Your task to perform on an android device: change alarm snooze length Image 0: 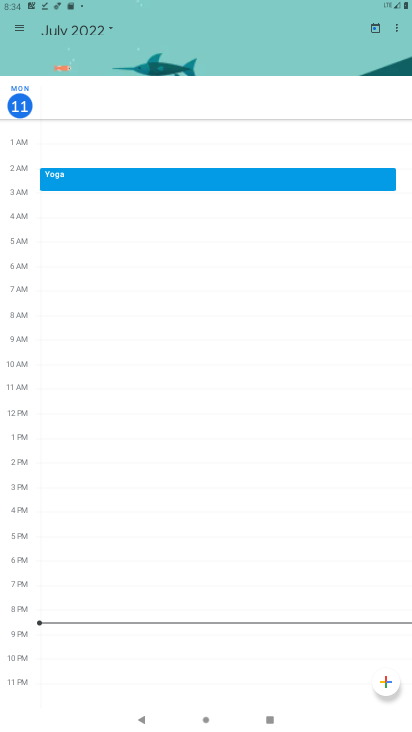
Step 0: press home button
Your task to perform on an android device: change alarm snooze length Image 1: 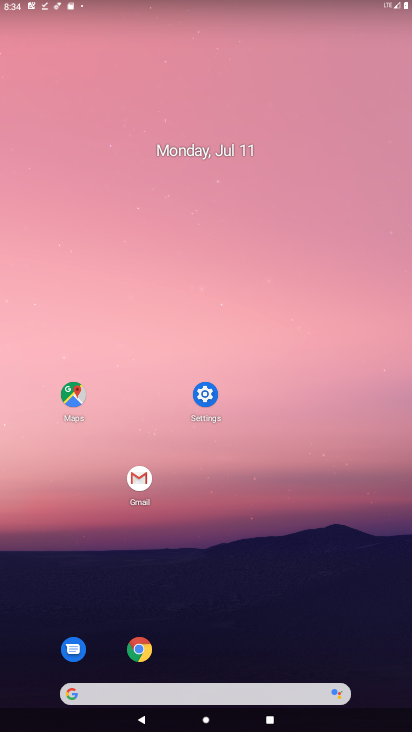
Step 1: drag from (390, 707) to (336, 264)
Your task to perform on an android device: change alarm snooze length Image 2: 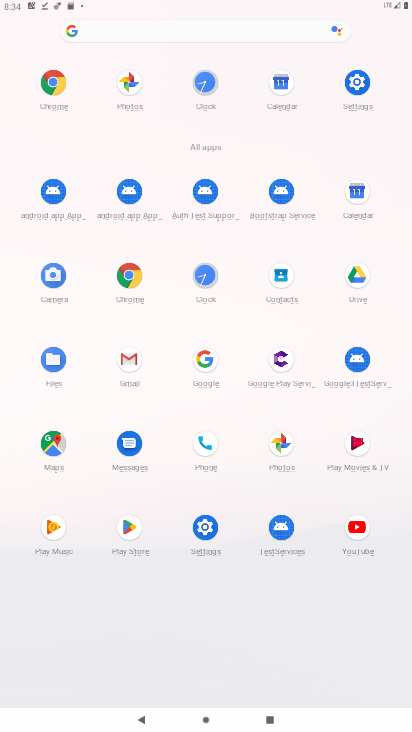
Step 2: click (206, 282)
Your task to perform on an android device: change alarm snooze length Image 3: 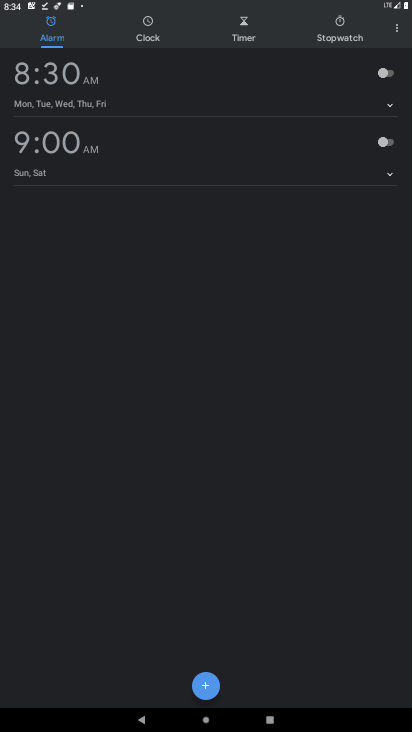
Step 3: click (399, 32)
Your task to perform on an android device: change alarm snooze length Image 4: 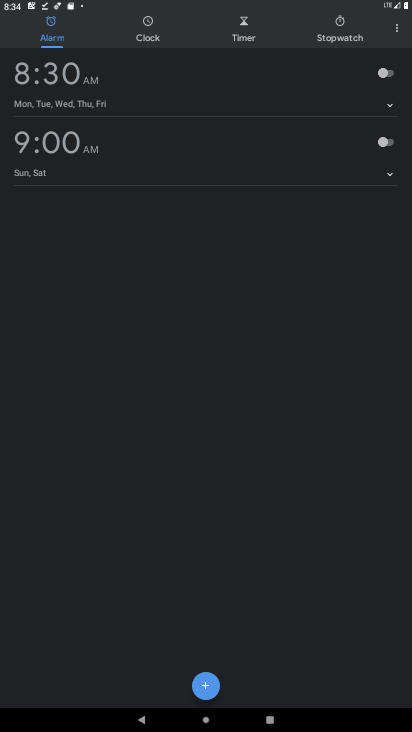
Step 4: click (398, 33)
Your task to perform on an android device: change alarm snooze length Image 5: 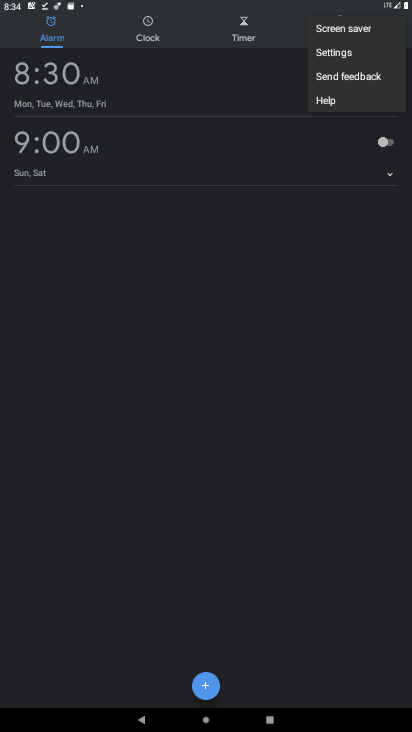
Step 5: click (334, 51)
Your task to perform on an android device: change alarm snooze length Image 6: 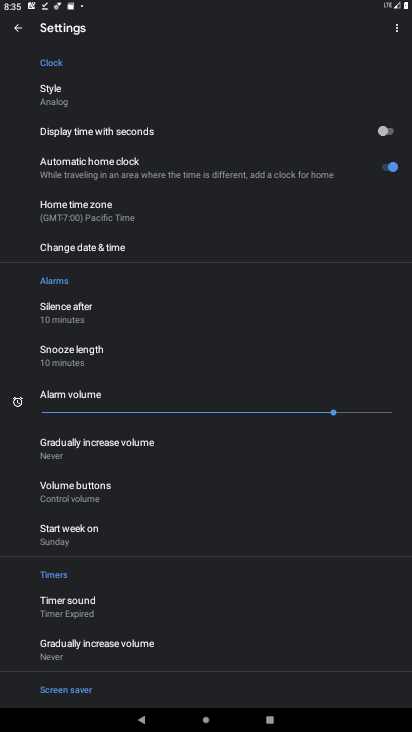
Step 6: click (76, 348)
Your task to perform on an android device: change alarm snooze length Image 7: 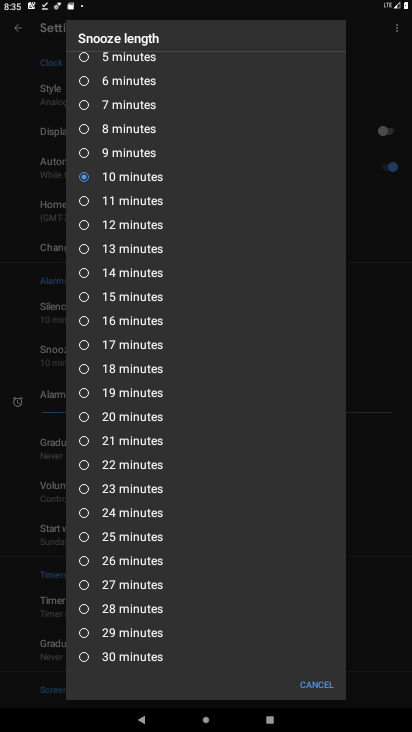
Step 7: click (87, 344)
Your task to perform on an android device: change alarm snooze length Image 8: 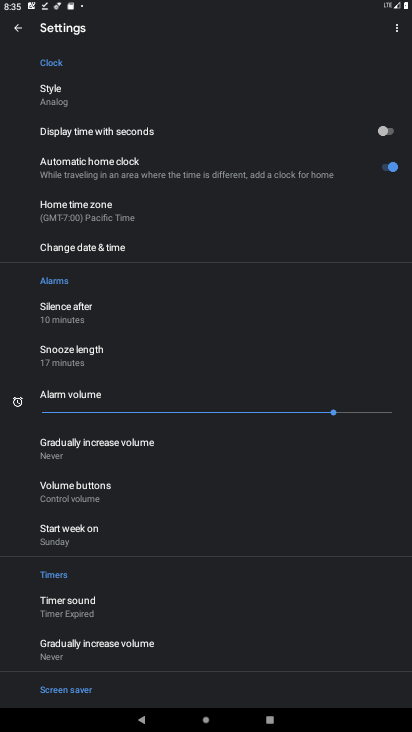
Step 8: task complete